Your task to perform on an android device: change timer sound Image 0: 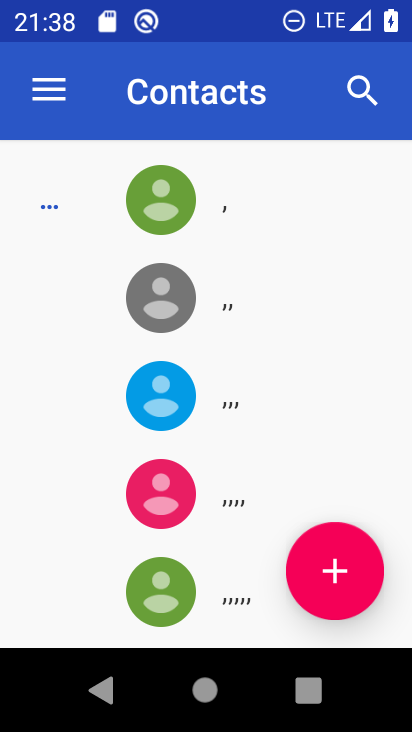
Step 0: press home button
Your task to perform on an android device: change timer sound Image 1: 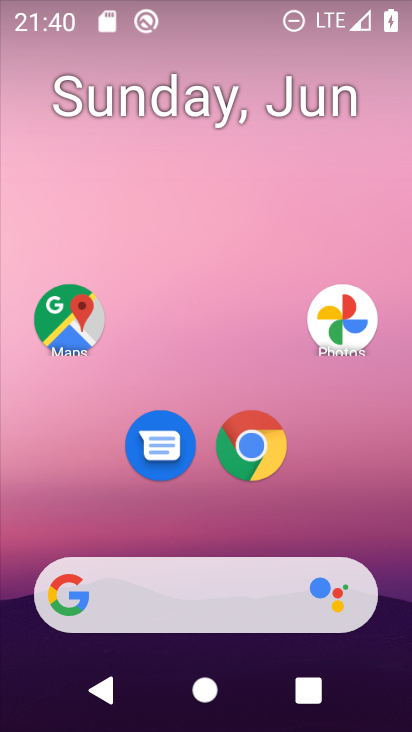
Step 1: drag from (241, 517) to (161, 111)
Your task to perform on an android device: change timer sound Image 2: 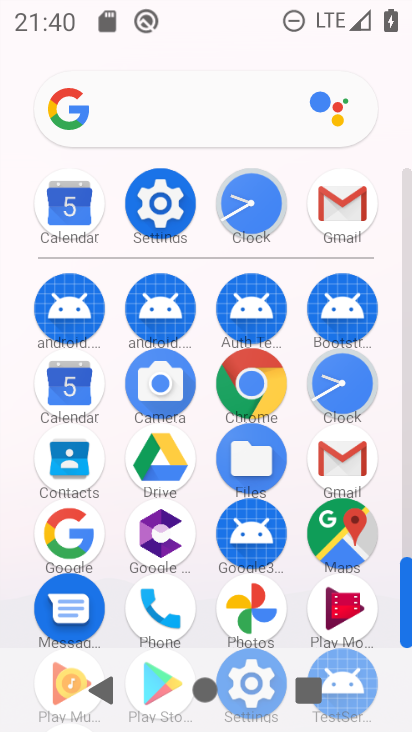
Step 2: click (331, 395)
Your task to perform on an android device: change timer sound Image 3: 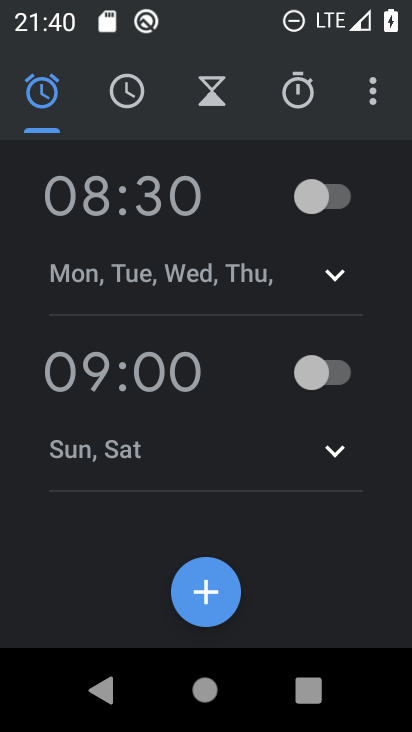
Step 3: click (372, 104)
Your task to perform on an android device: change timer sound Image 4: 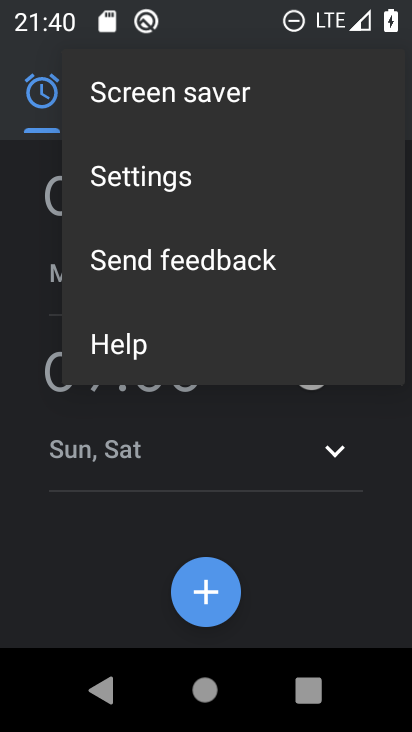
Step 4: click (152, 190)
Your task to perform on an android device: change timer sound Image 5: 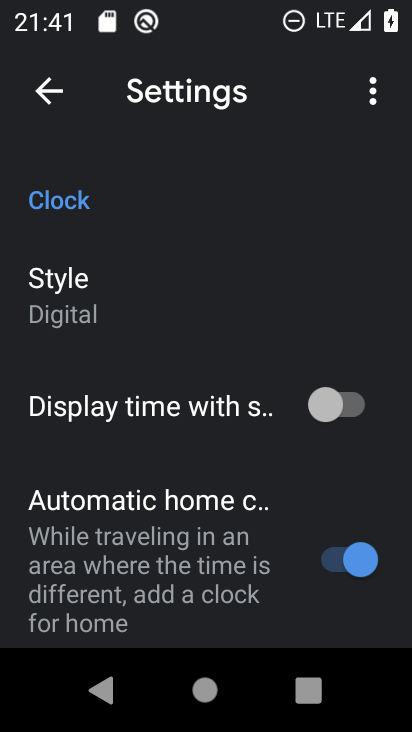
Step 5: drag from (311, 496) to (307, 102)
Your task to perform on an android device: change timer sound Image 6: 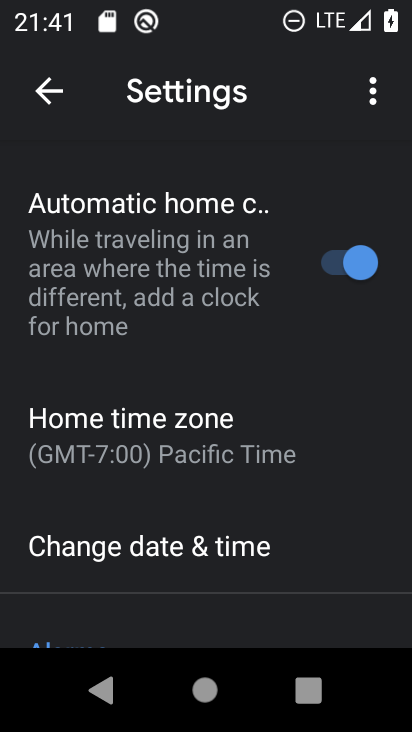
Step 6: drag from (332, 503) to (327, 154)
Your task to perform on an android device: change timer sound Image 7: 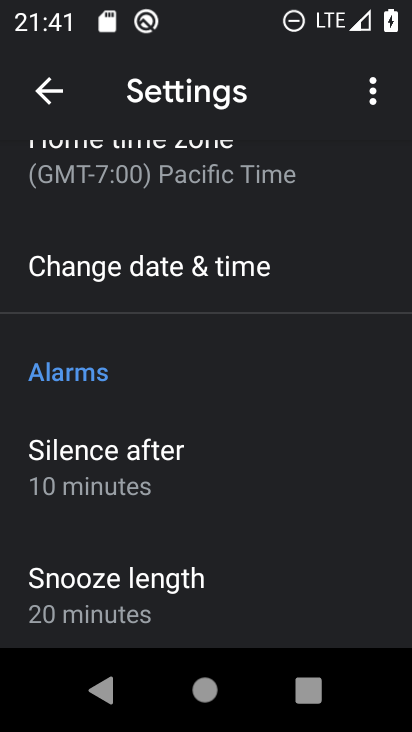
Step 7: drag from (286, 537) to (282, 161)
Your task to perform on an android device: change timer sound Image 8: 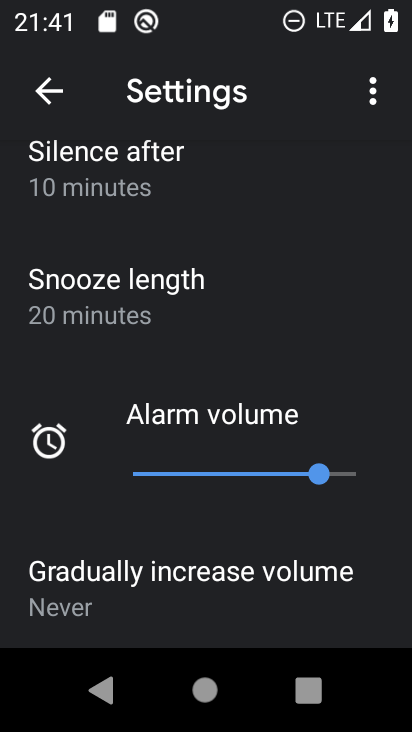
Step 8: drag from (262, 334) to (282, 152)
Your task to perform on an android device: change timer sound Image 9: 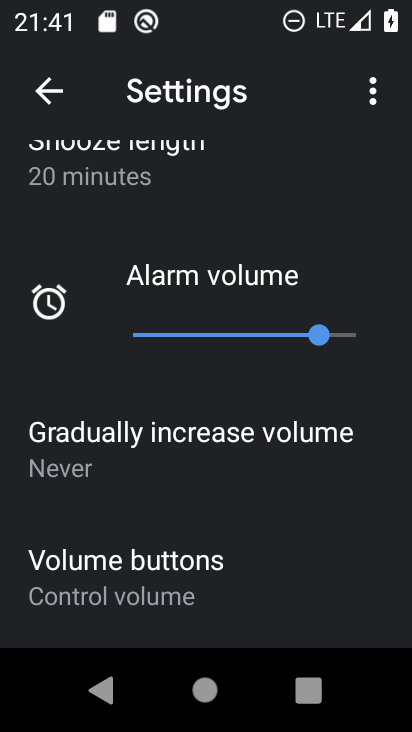
Step 9: drag from (259, 604) to (280, 226)
Your task to perform on an android device: change timer sound Image 10: 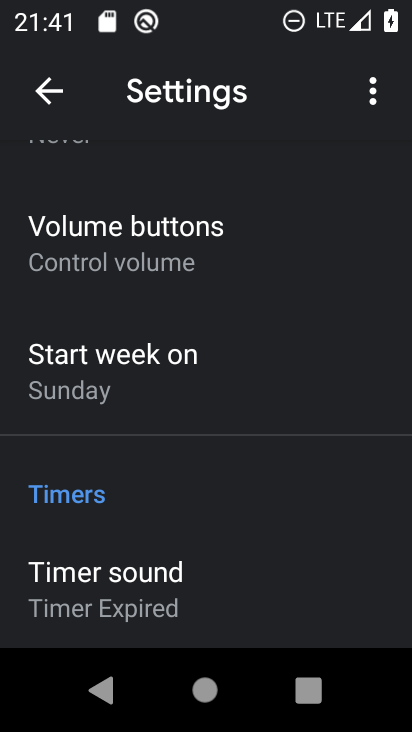
Step 10: click (113, 586)
Your task to perform on an android device: change timer sound Image 11: 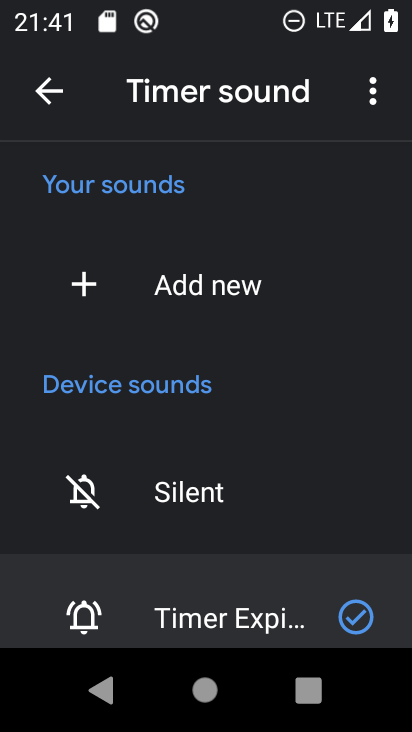
Step 11: drag from (283, 518) to (328, 192)
Your task to perform on an android device: change timer sound Image 12: 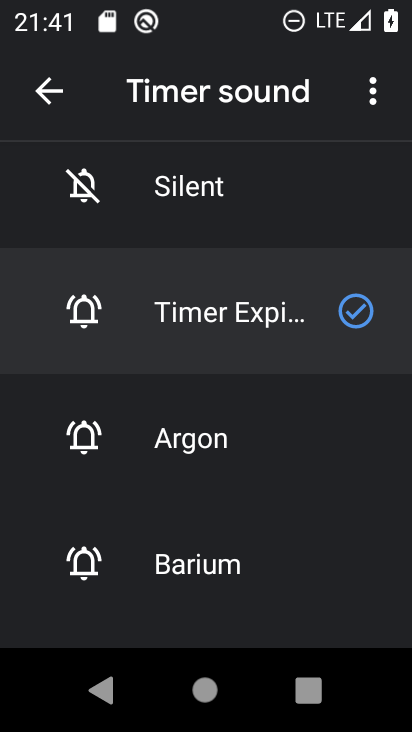
Step 12: click (88, 442)
Your task to perform on an android device: change timer sound Image 13: 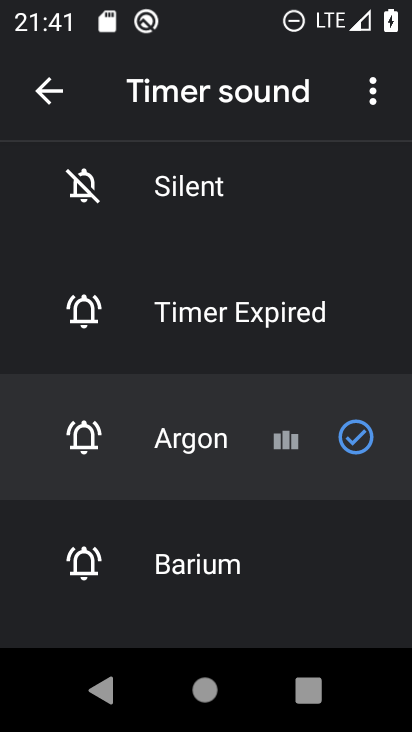
Step 13: task complete